Your task to perform on an android device: Search for "corsair k70" on target, select the first entry, add it to the cart, then select checkout. Image 0: 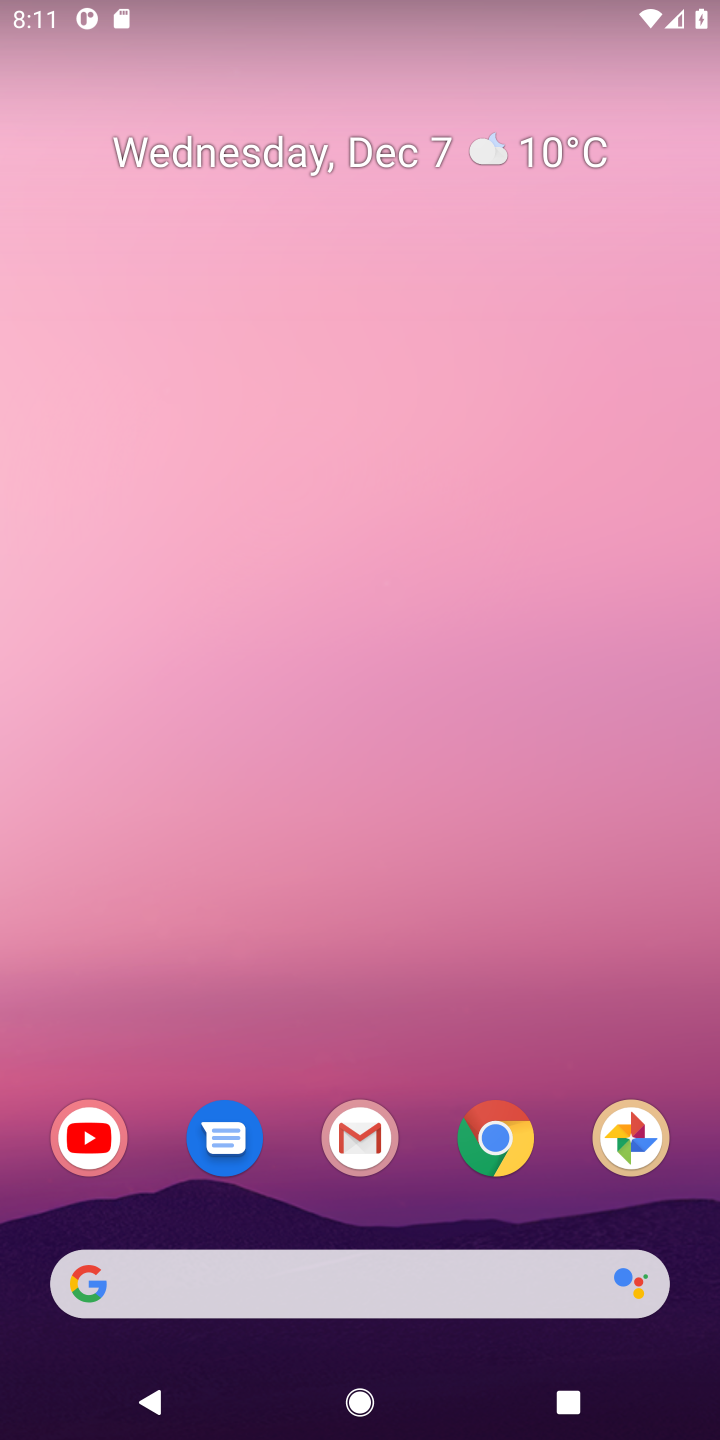
Step 0: click (163, 1293)
Your task to perform on an android device: Search for "corsair k70" on target, select the first entry, add it to the cart, then select checkout. Image 1: 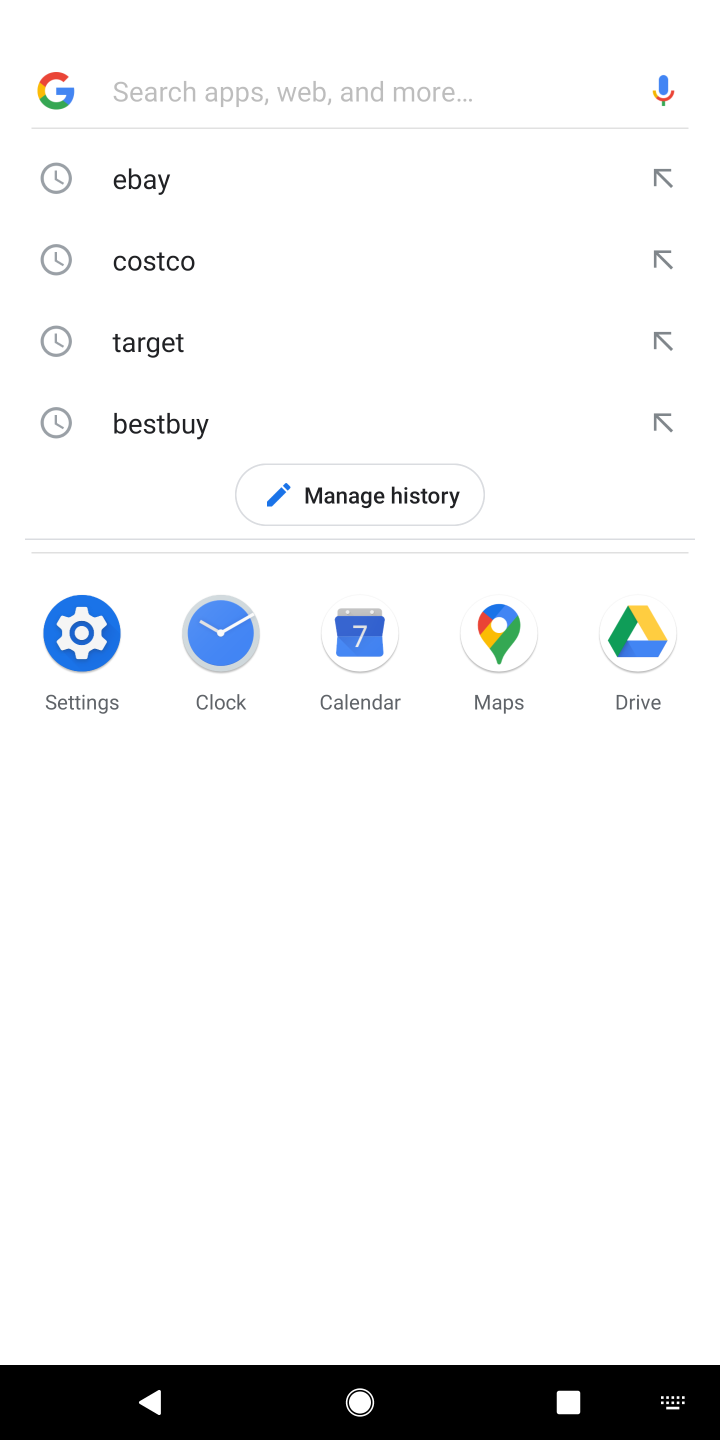
Step 1: press enter
Your task to perform on an android device: Search for "corsair k70" on target, select the first entry, add it to the cart, then select checkout. Image 2: 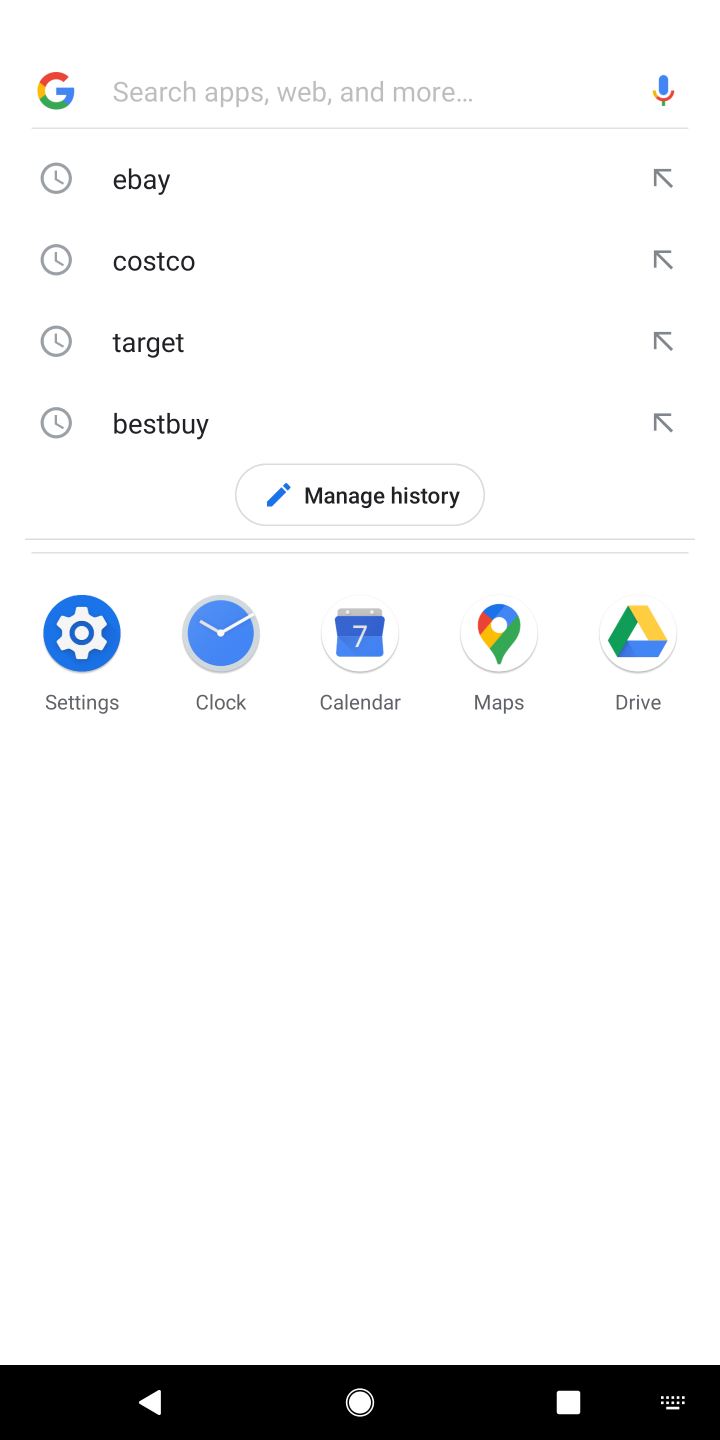
Step 2: type "target"
Your task to perform on an android device: Search for "corsair k70" on target, select the first entry, add it to the cart, then select checkout. Image 3: 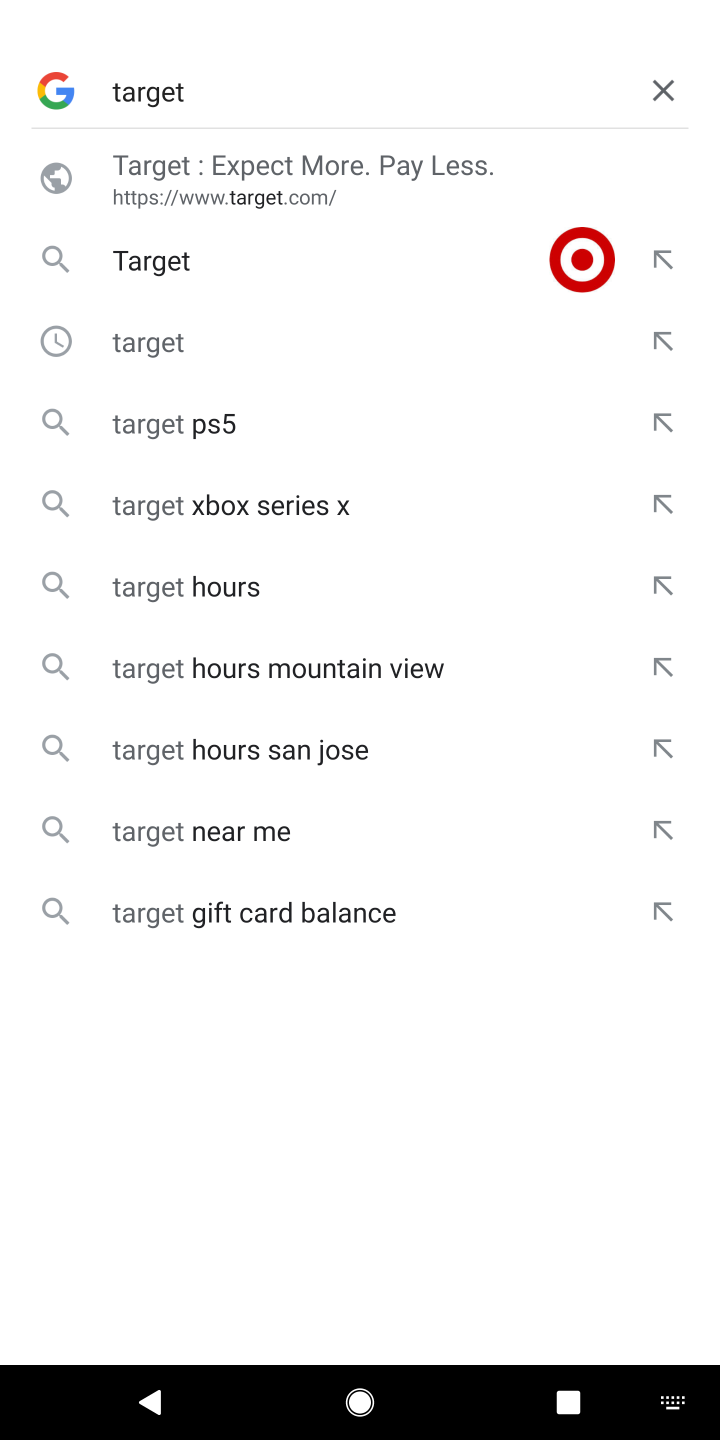
Step 3: press enter
Your task to perform on an android device: Search for "corsair k70" on target, select the first entry, add it to the cart, then select checkout. Image 4: 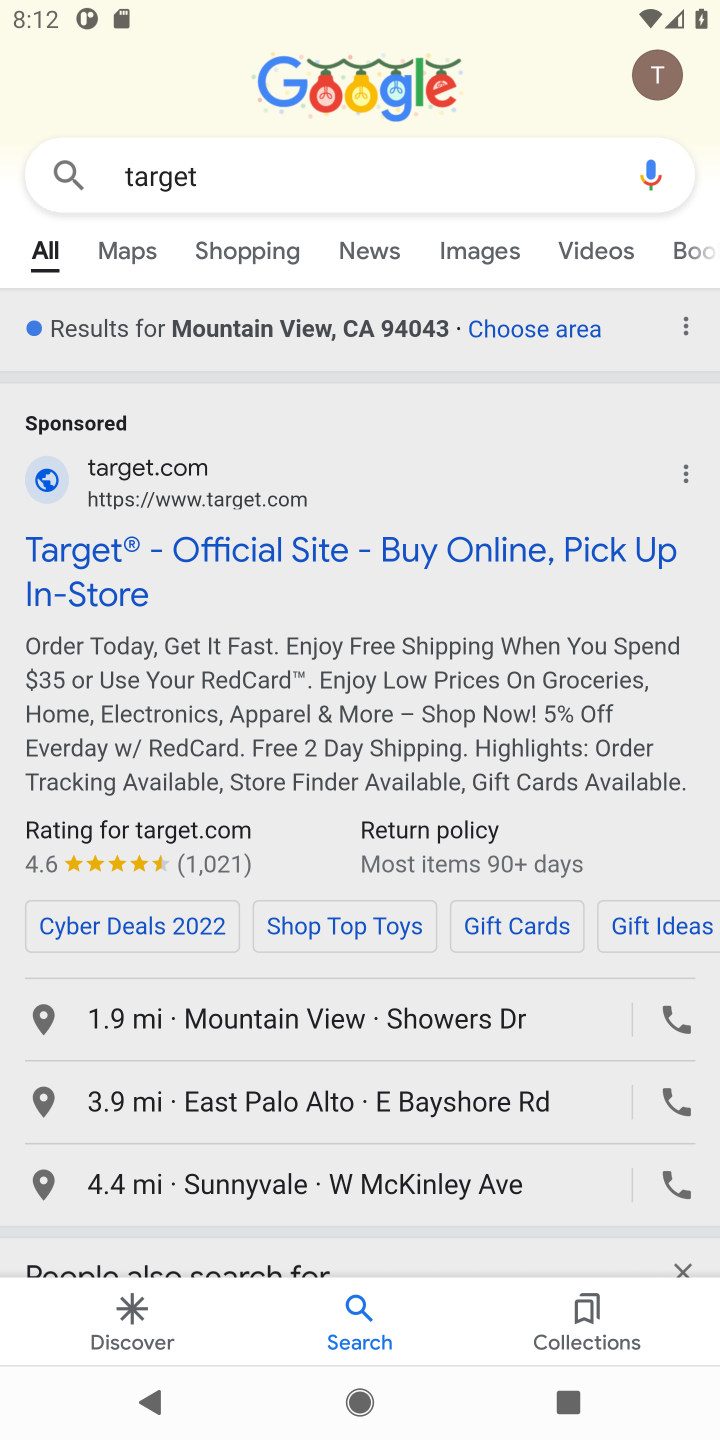
Step 4: click (298, 547)
Your task to perform on an android device: Search for "corsair k70" on target, select the first entry, add it to the cart, then select checkout. Image 5: 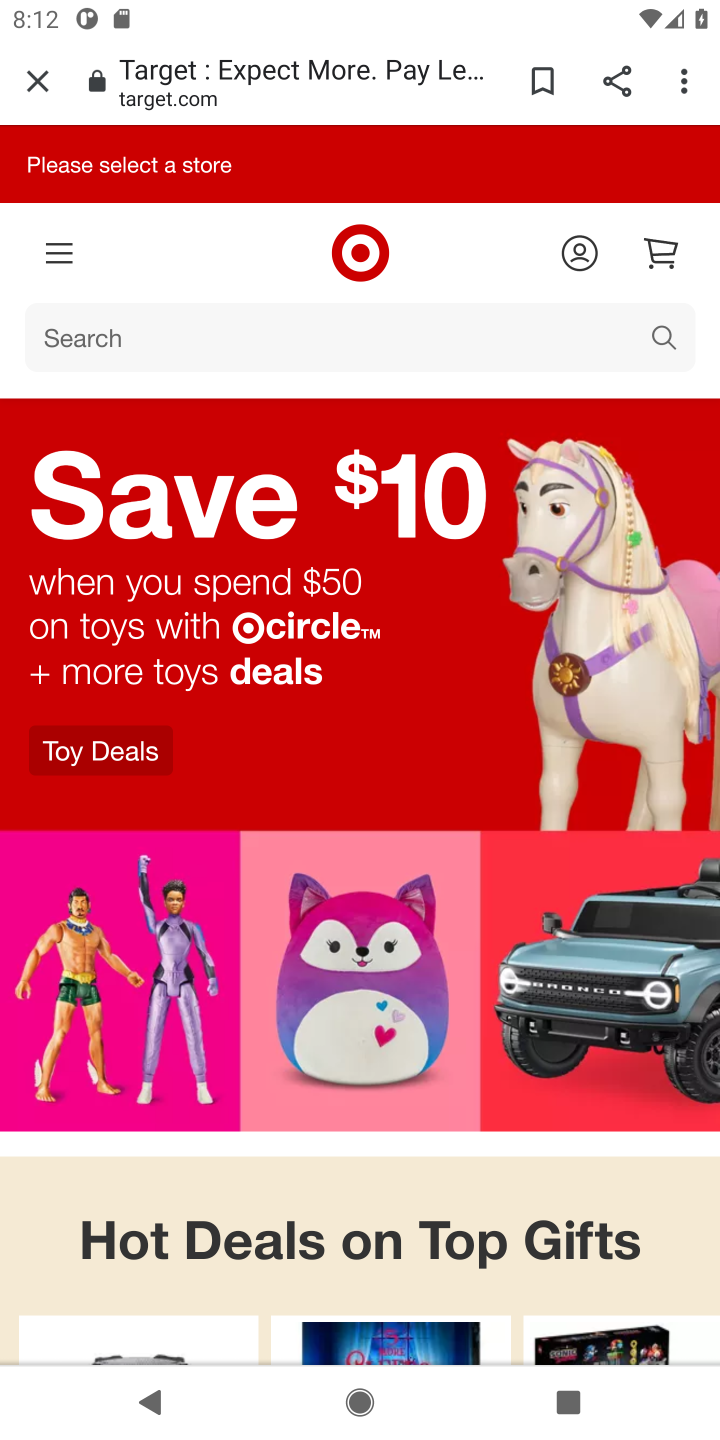
Step 5: click (133, 331)
Your task to perform on an android device: Search for "corsair k70" on target, select the first entry, add it to the cart, then select checkout. Image 6: 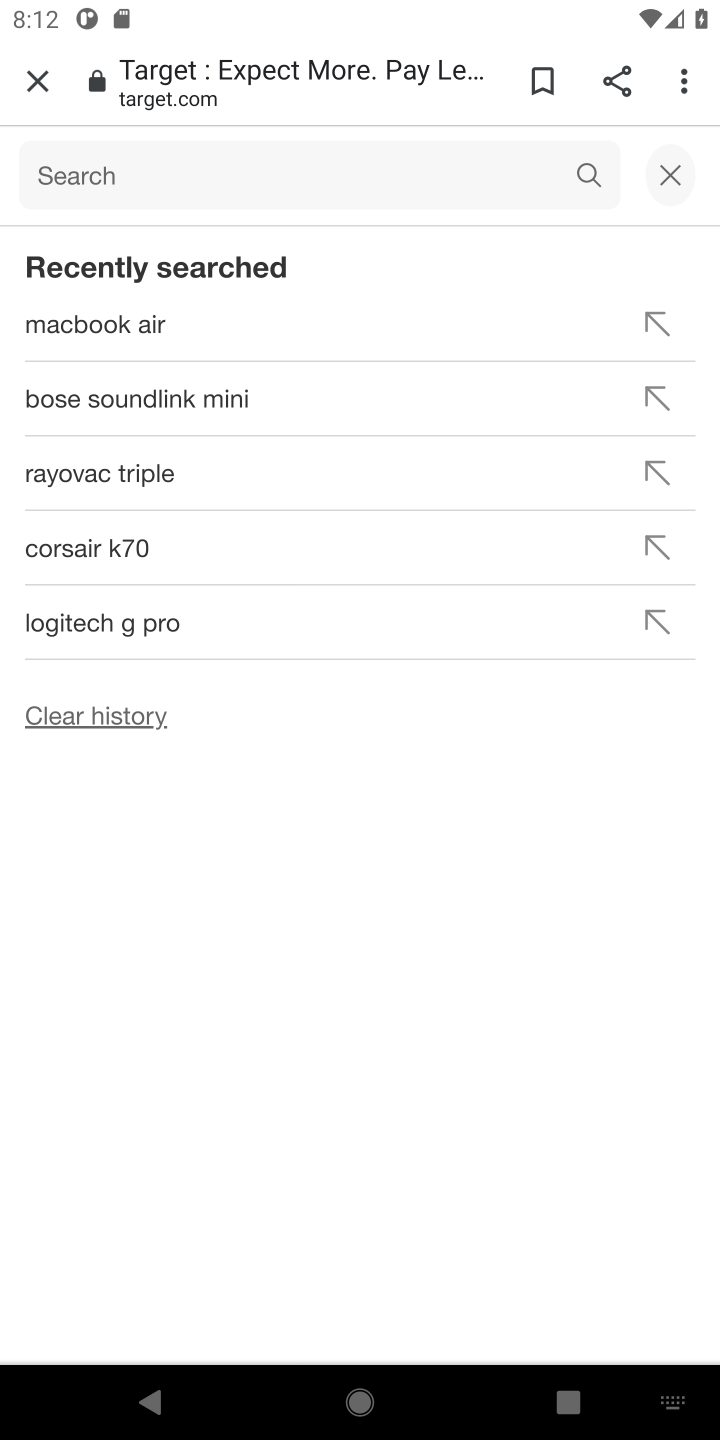
Step 6: press enter
Your task to perform on an android device: Search for "corsair k70" on target, select the first entry, add it to the cart, then select checkout. Image 7: 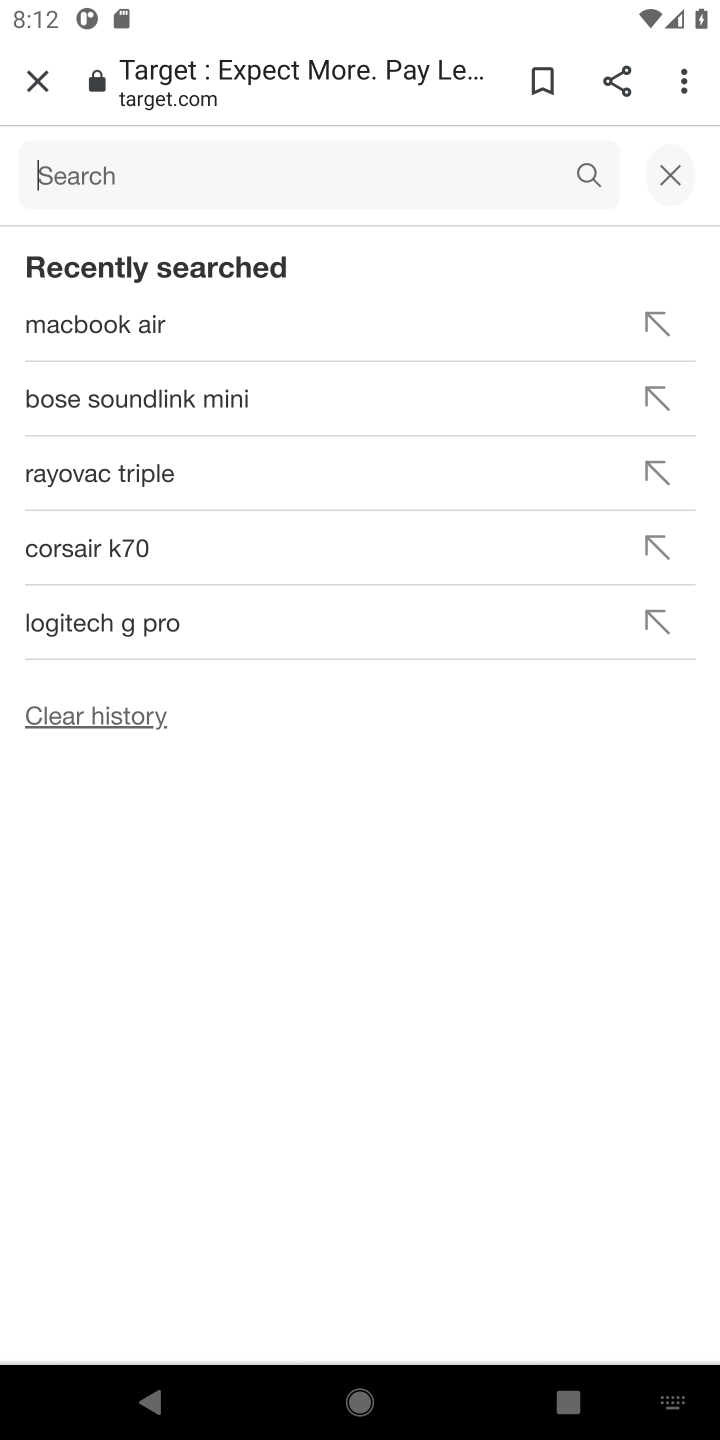
Step 7: type "corsair k70"
Your task to perform on an android device: Search for "corsair k70" on target, select the first entry, add it to the cart, then select checkout. Image 8: 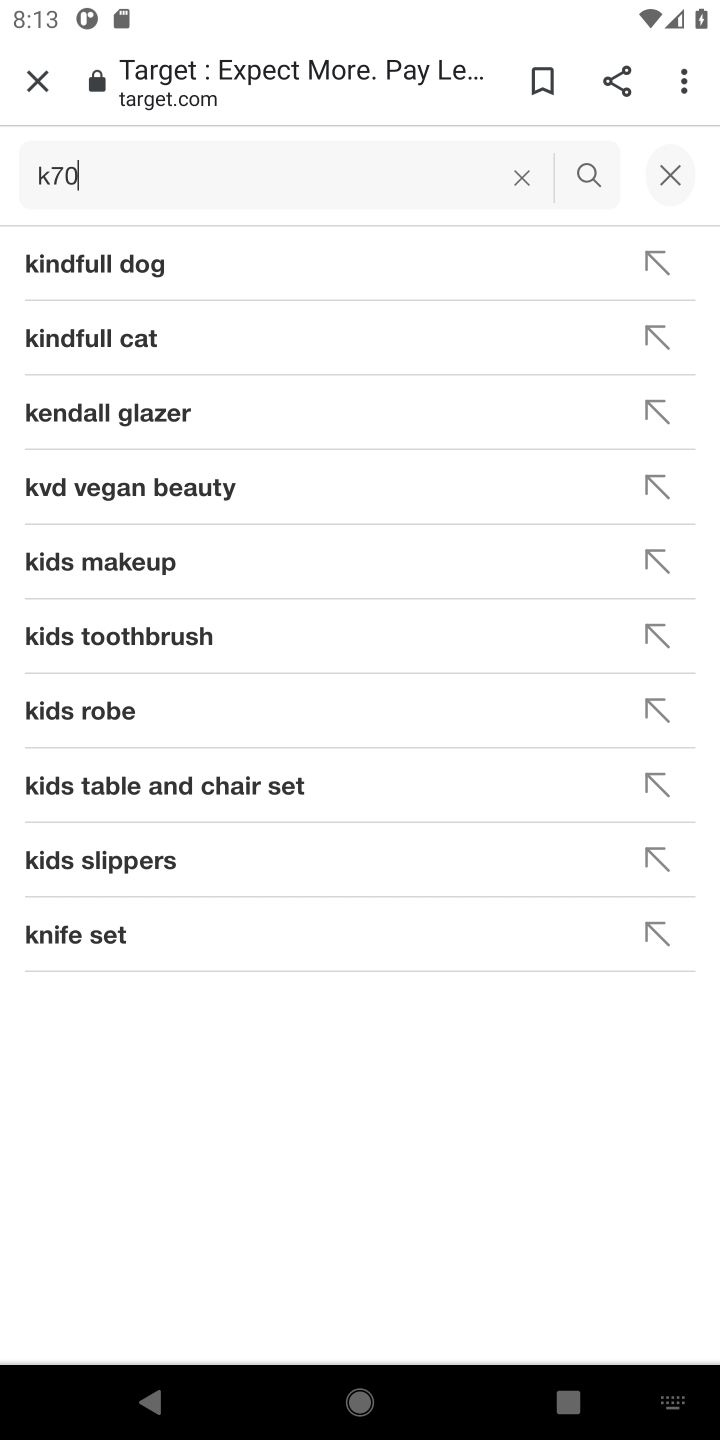
Step 8: click (510, 174)
Your task to perform on an android device: Search for "corsair k70" on target, select the first entry, add it to the cart, then select checkout. Image 9: 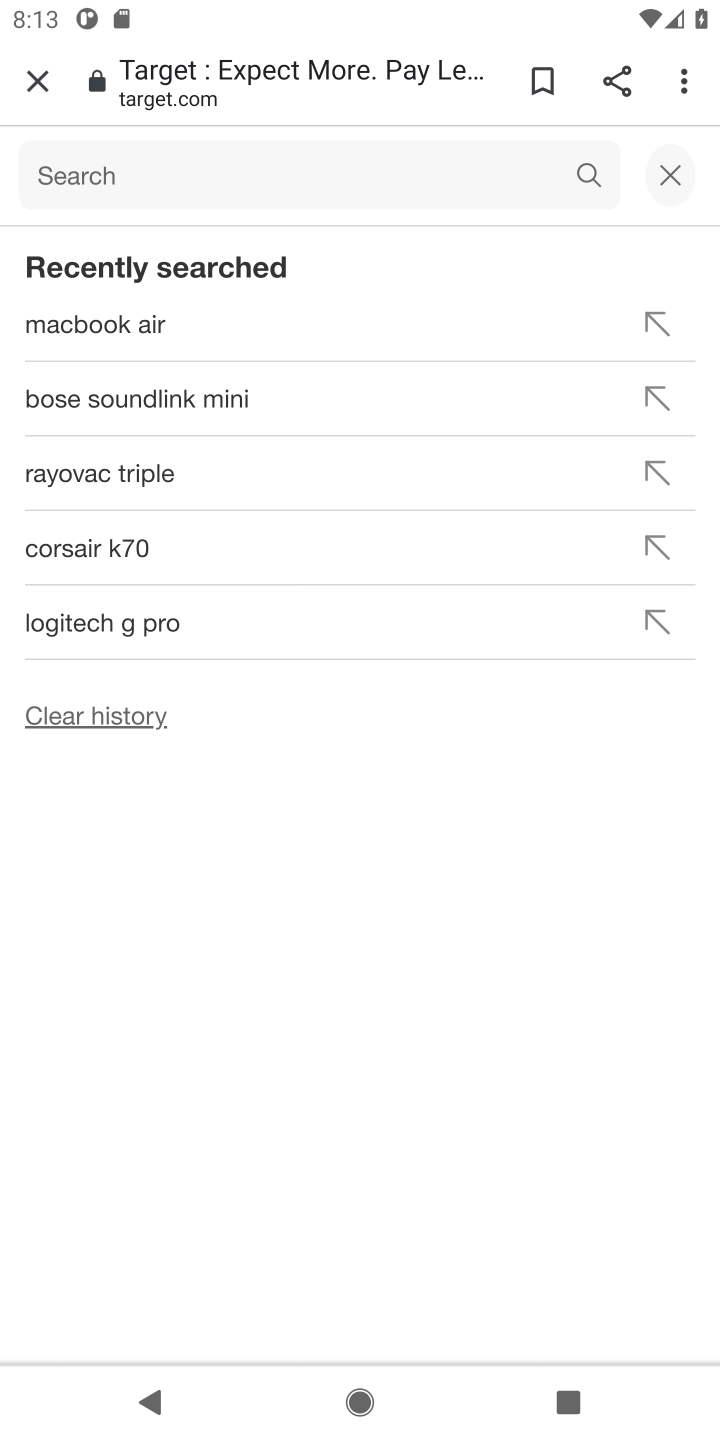
Step 9: click (516, 173)
Your task to perform on an android device: Search for "corsair k70" on target, select the first entry, add it to the cart, then select checkout. Image 10: 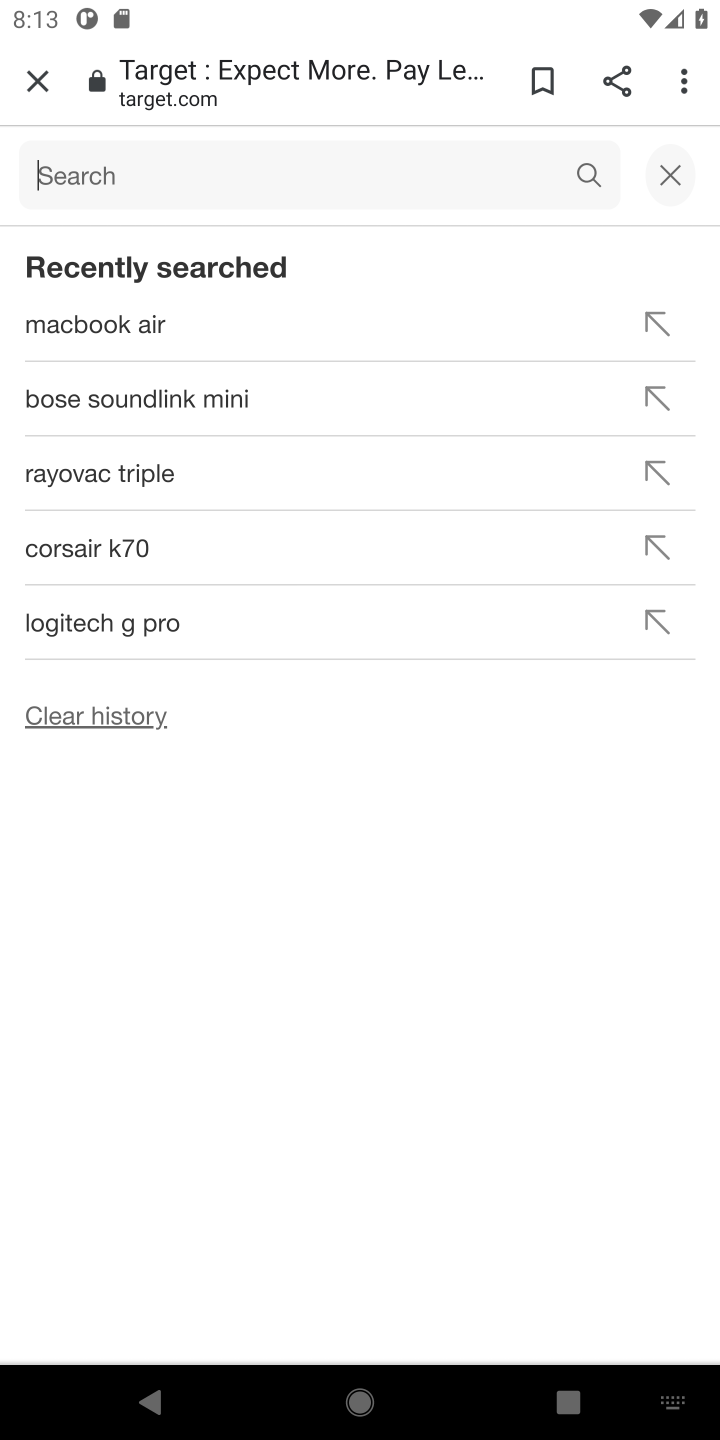
Step 10: press enter
Your task to perform on an android device: Search for "corsair k70" on target, select the first entry, add it to the cart, then select checkout. Image 11: 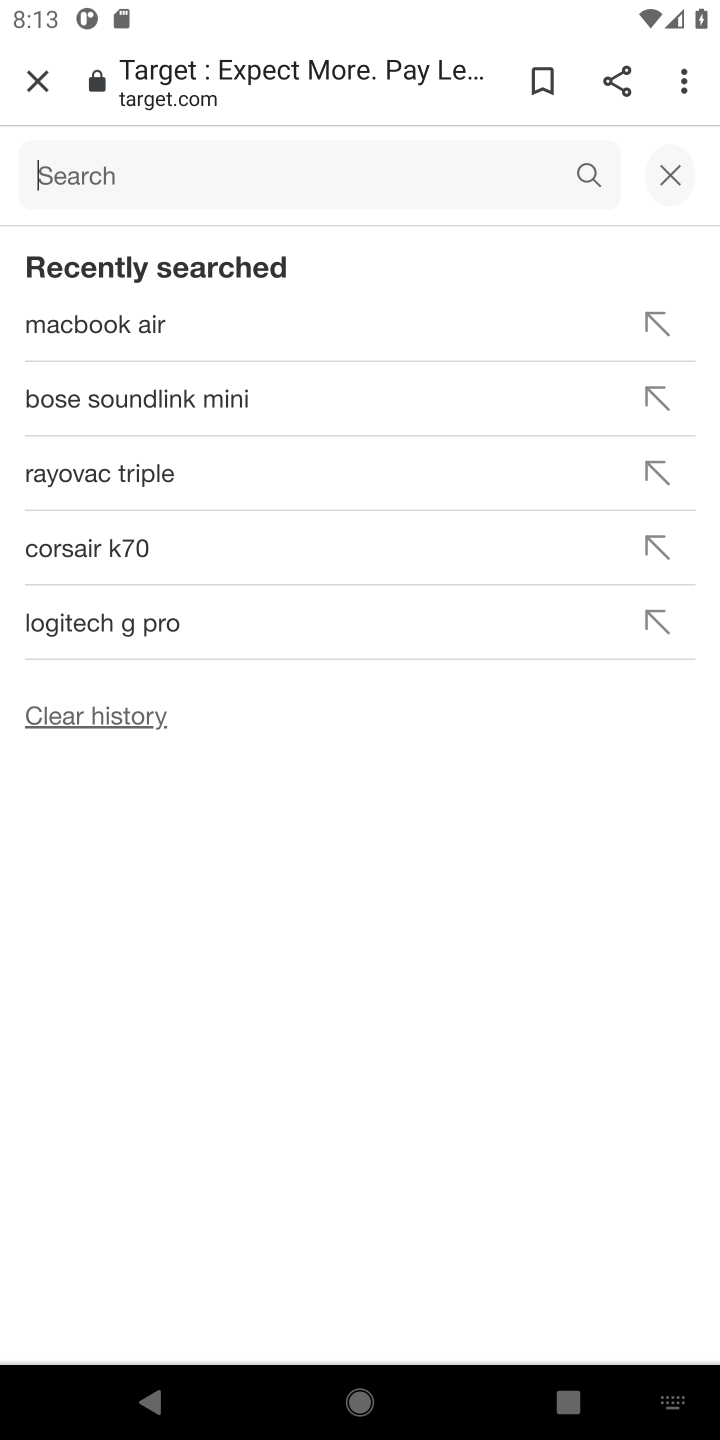
Step 11: type "corsair k70"
Your task to perform on an android device: Search for "corsair k70" on target, select the first entry, add it to the cart, then select checkout. Image 12: 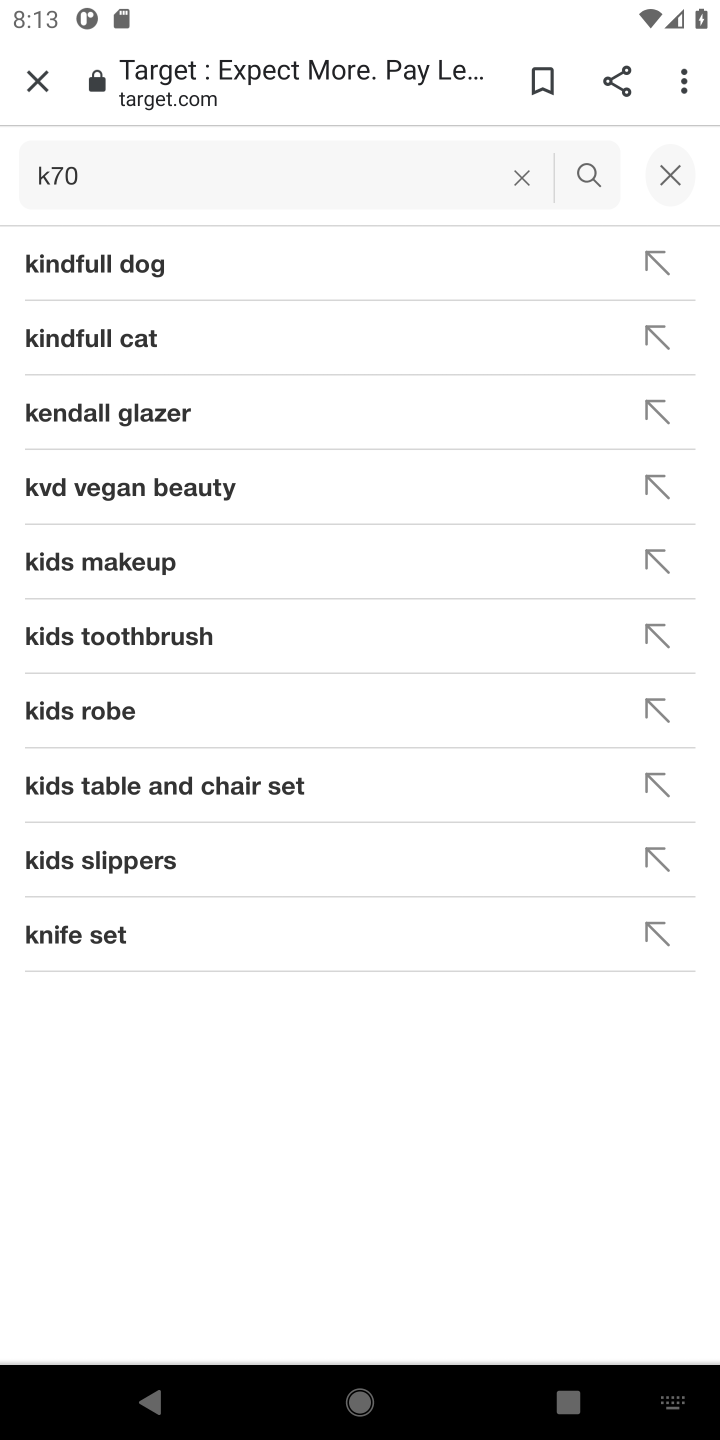
Step 12: press enter
Your task to perform on an android device: Search for "corsair k70" on target, select the first entry, add it to the cart, then select checkout. Image 13: 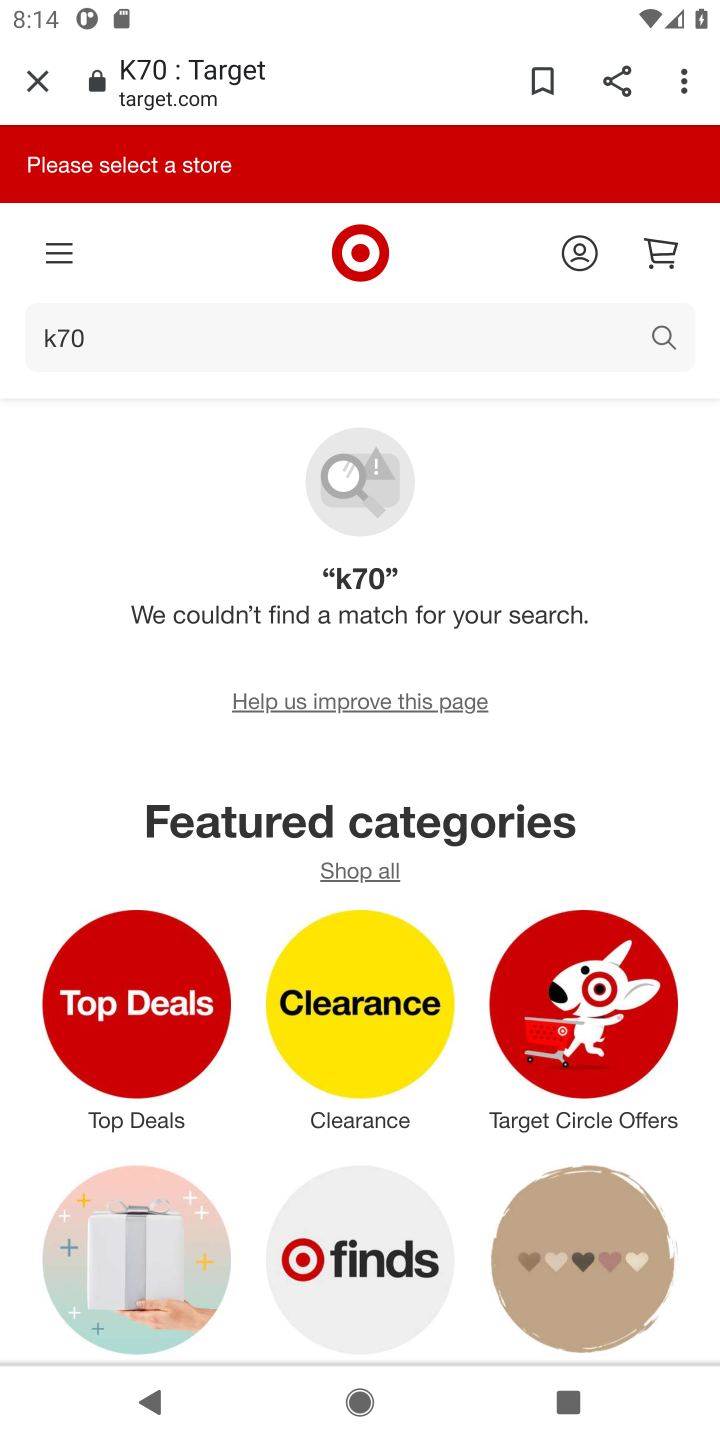
Step 13: task complete